Your task to perform on an android device: Open Android settings Image 0: 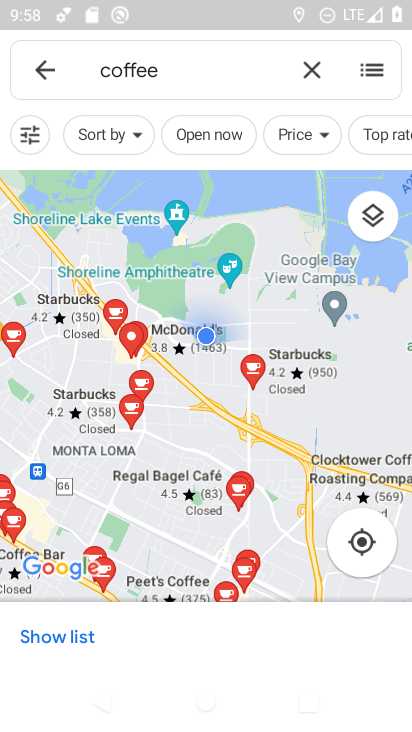
Step 0: press home button
Your task to perform on an android device: Open Android settings Image 1: 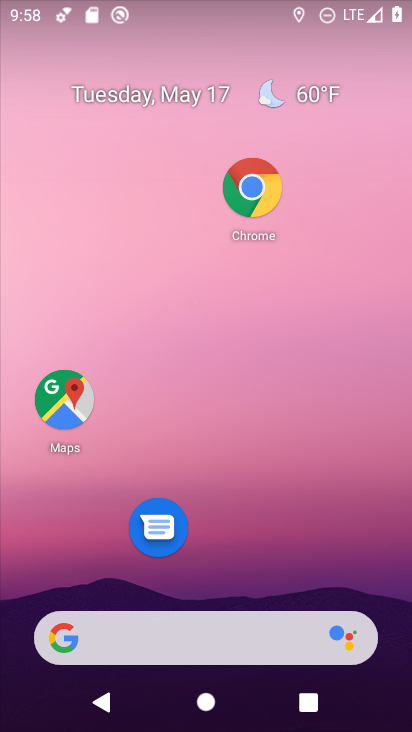
Step 1: drag from (266, 559) to (253, 94)
Your task to perform on an android device: Open Android settings Image 2: 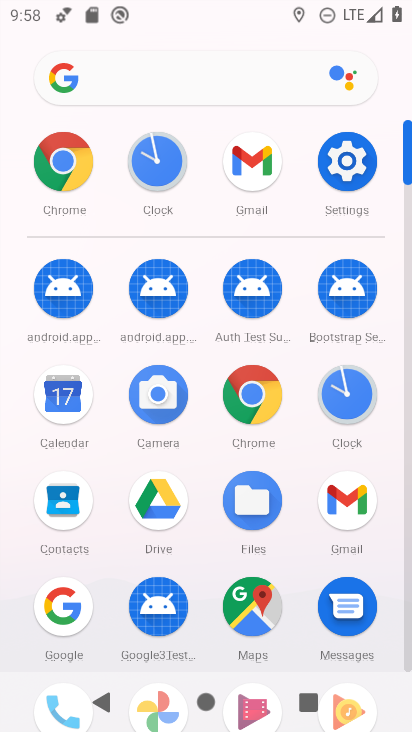
Step 2: click (341, 161)
Your task to perform on an android device: Open Android settings Image 3: 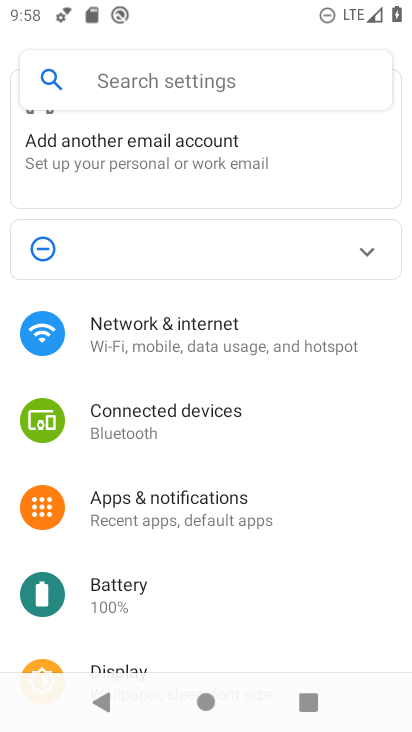
Step 3: task complete